Your task to perform on an android device: turn off translation in the chrome app Image 0: 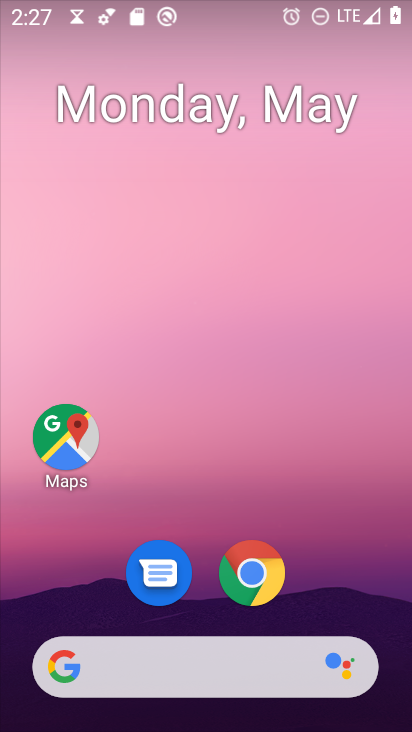
Step 0: drag from (299, 575) to (303, 56)
Your task to perform on an android device: turn off translation in the chrome app Image 1: 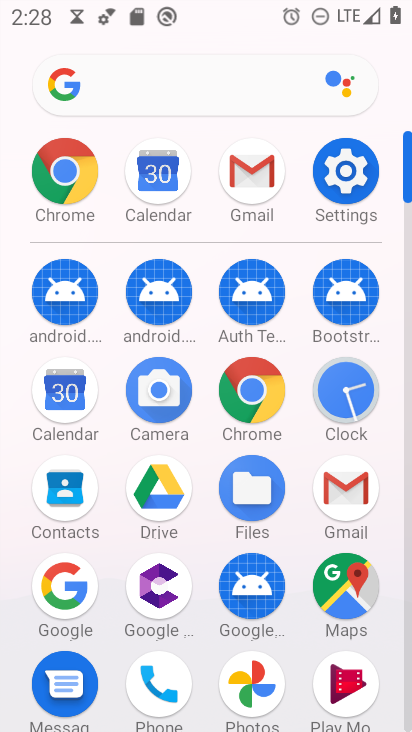
Step 1: click (262, 393)
Your task to perform on an android device: turn off translation in the chrome app Image 2: 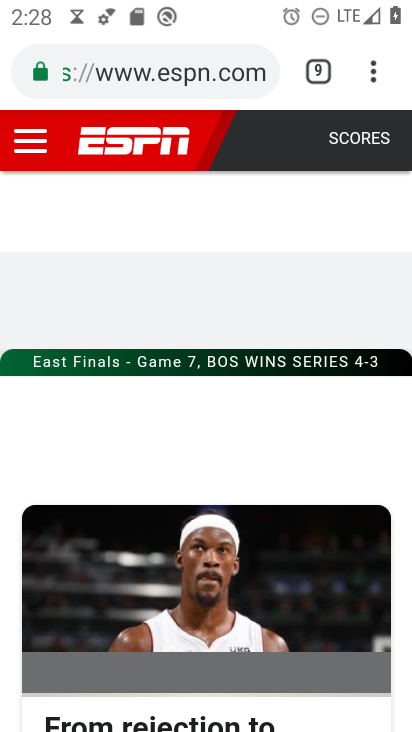
Step 2: drag from (369, 70) to (151, 583)
Your task to perform on an android device: turn off translation in the chrome app Image 3: 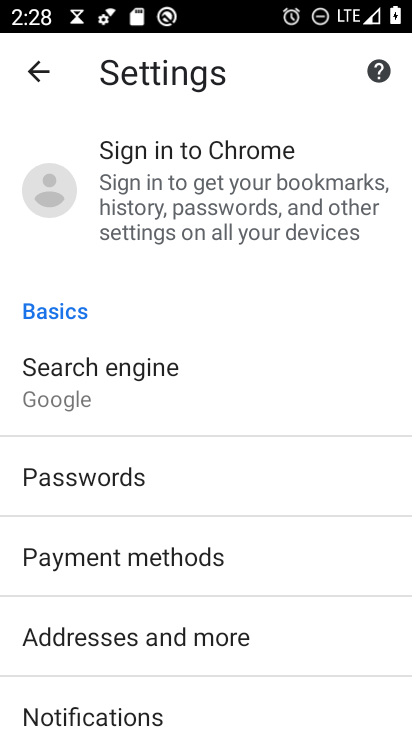
Step 3: drag from (188, 690) to (177, 124)
Your task to perform on an android device: turn off translation in the chrome app Image 4: 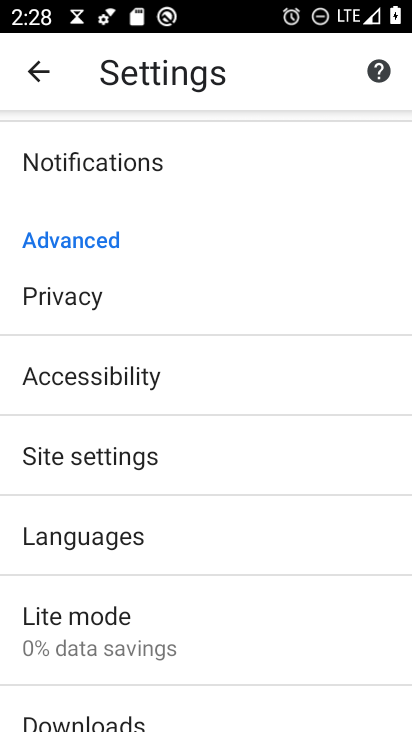
Step 4: drag from (134, 614) to (189, 328)
Your task to perform on an android device: turn off translation in the chrome app Image 5: 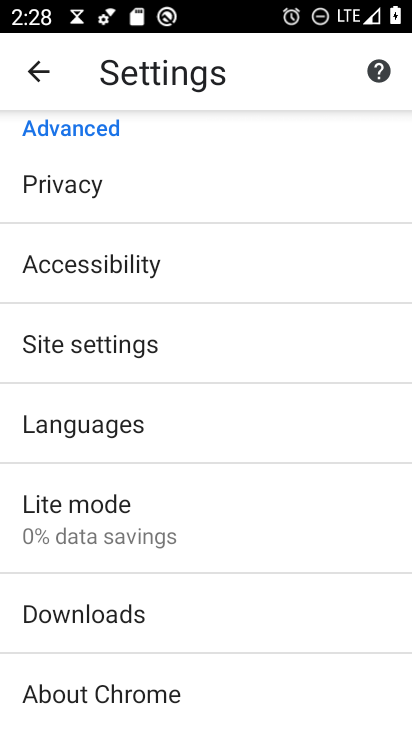
Step 5: click (151, 441)
Your task to perform on an android device: turn off translation in the chrome app Image 6: 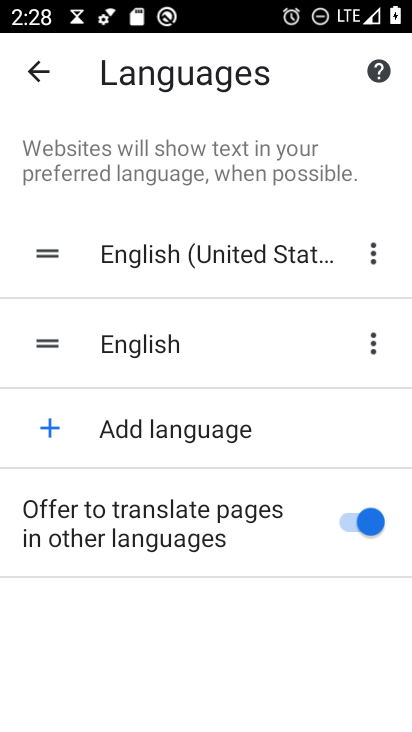
Step 6: click (350, 518)
Your task to perform on an android device: turn off translation in the chrome app Image 7: 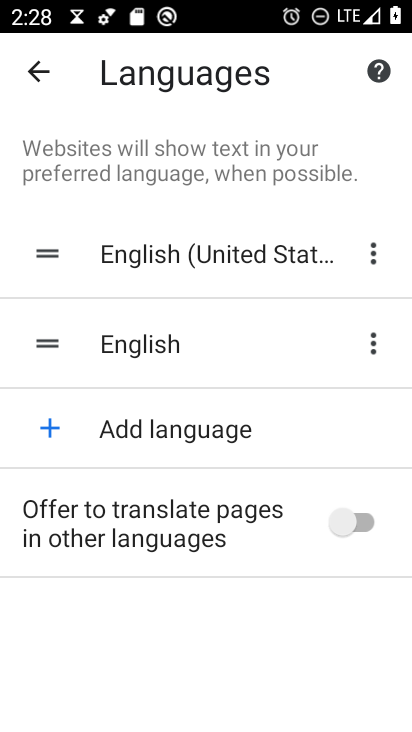
Step 7: task complete